Your task to perform on an android device: Go to CNN.com Image 0: 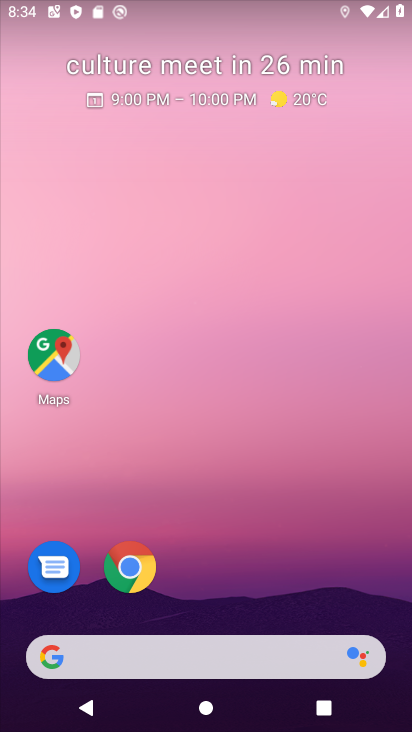
Step 0: click (145, 561)
Your task to perform on an android device: Go to CNN.com Image 1: 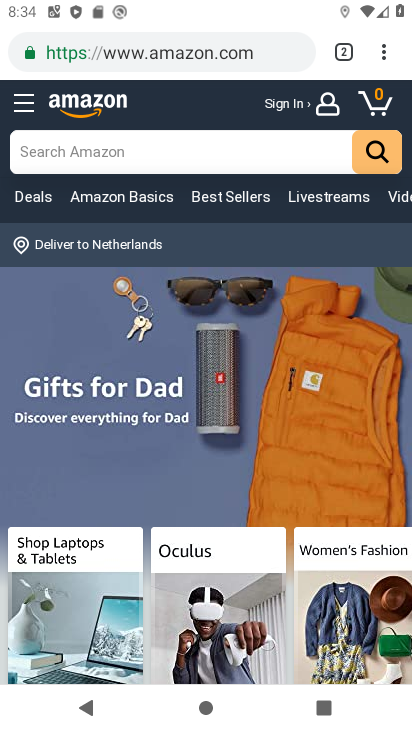
Step 1: click (268, 46)
Your task to perform on an android device: Go to CNN.com Image 2: 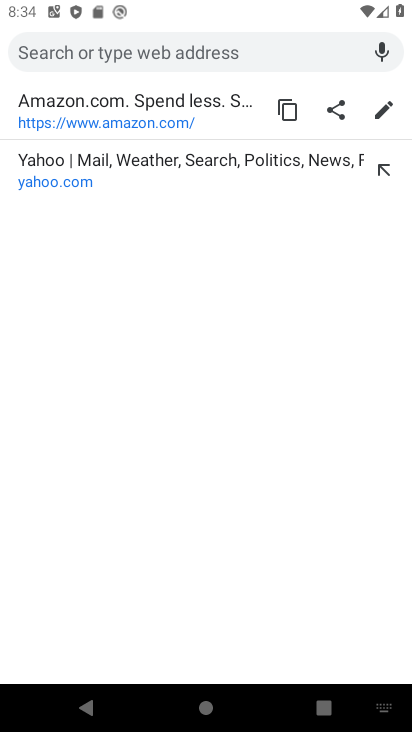
Step 2: type "cnn"
Your task to perform on an android device: Go to CNN.com Image 3: 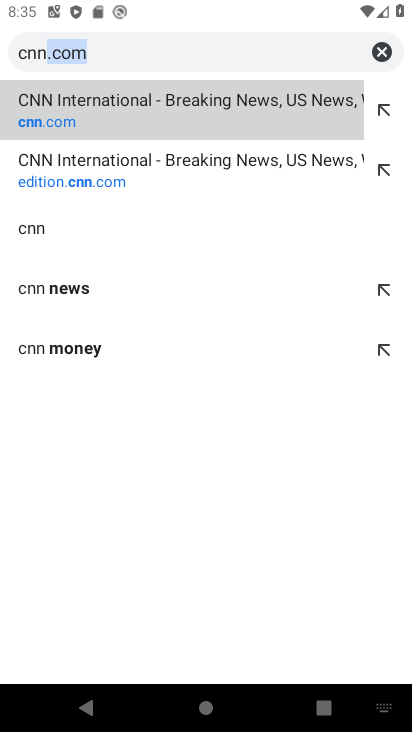
Step 3: click (169, 123)
Your task to perform on an android device: Go to CNN.com Image 4: 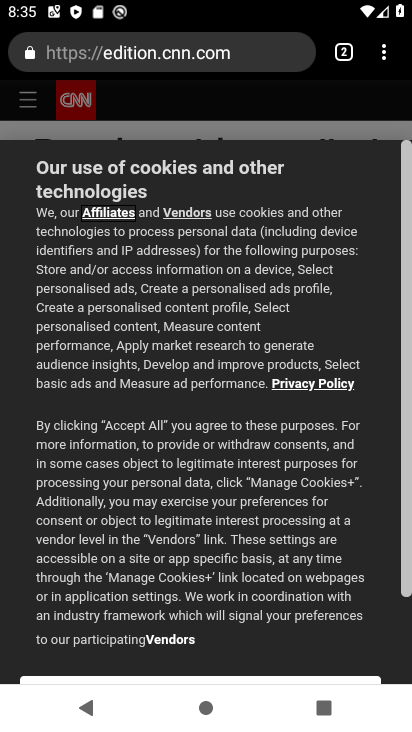
Step 4: task complete